Your task to perform on an android device: toggle improve location accuracy Image 0: 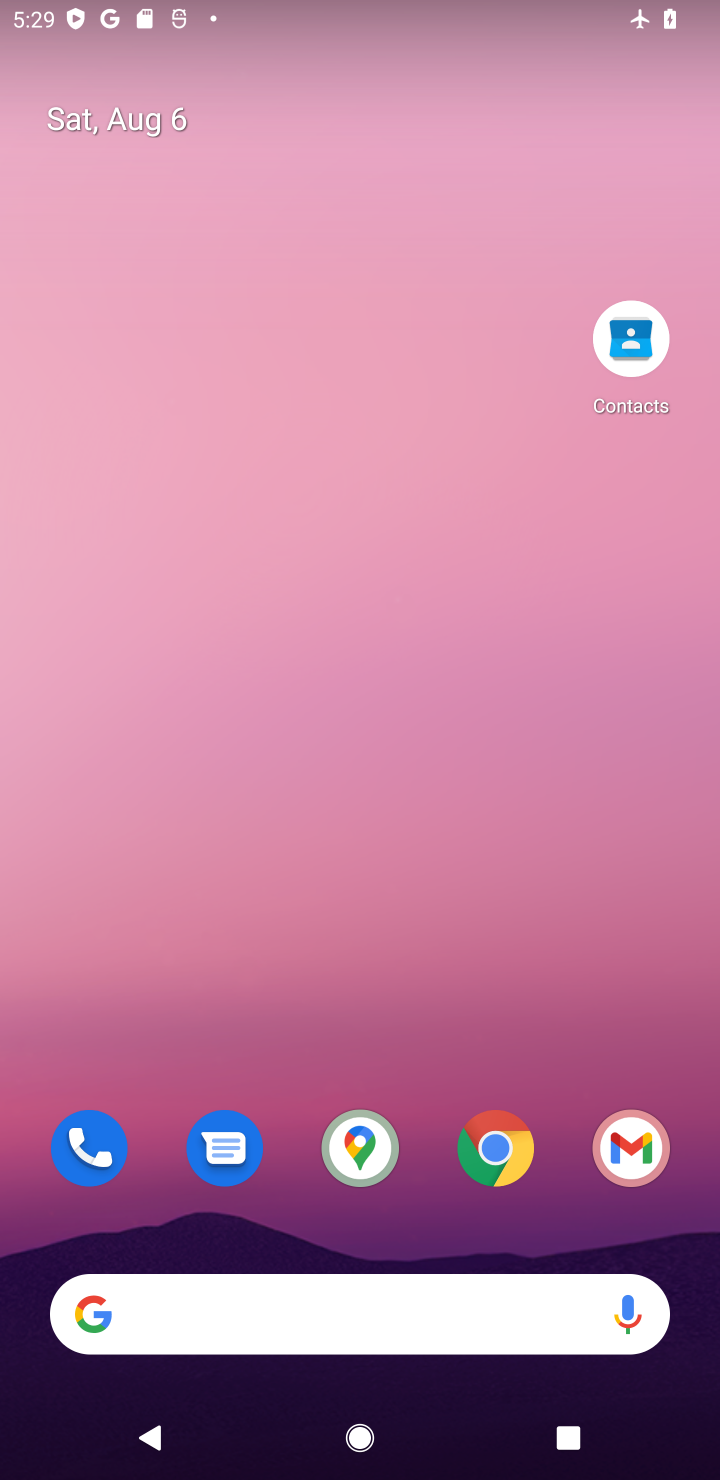
Step 0: drag from (355, 1028) to (715, 546)
Your task to perform on an android device: toggle improve location accuracy Image 1: 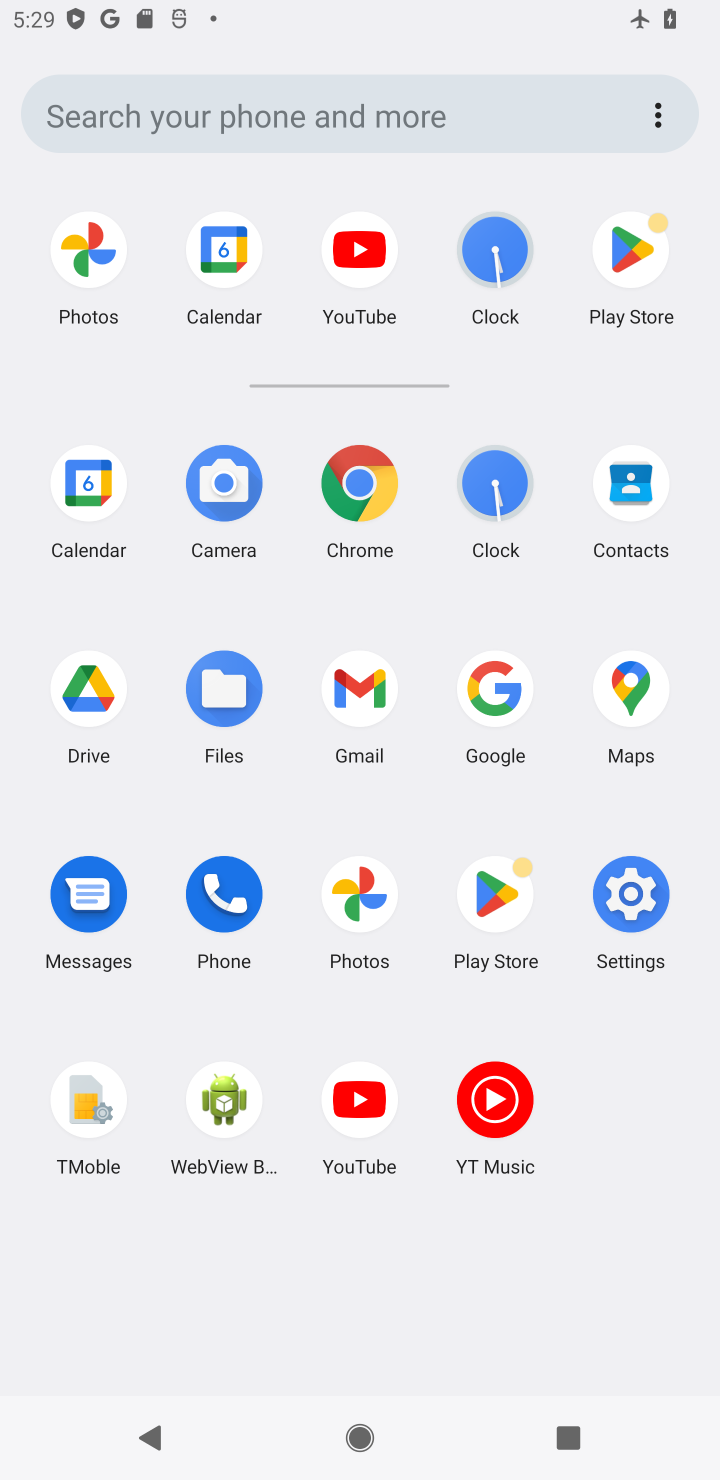
Step 1: click (600, 904)
Your task to perform on an android device: toggle improve location accuracy Image 2: 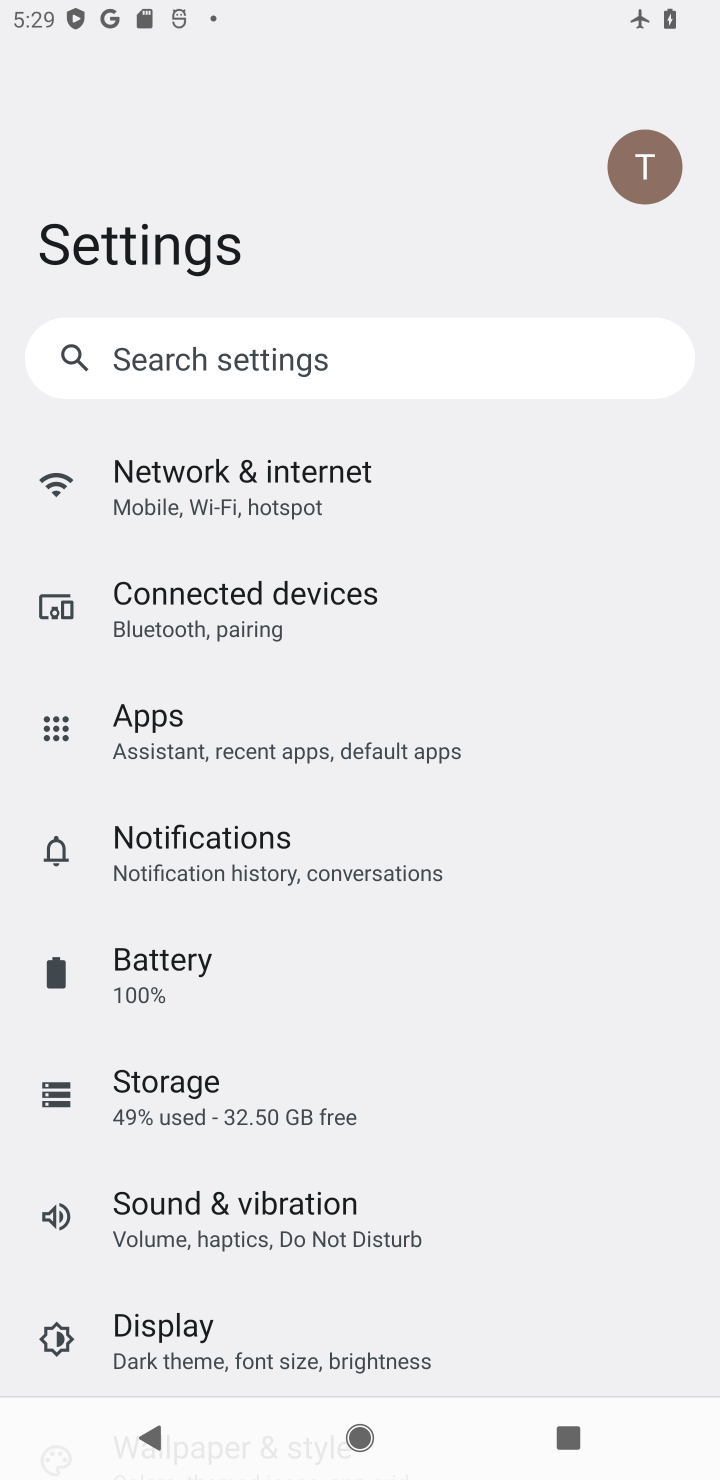
Step 2: drag from (258, 1081) to (238, 88)
Your task to perform on an android device: toggle improve location accuracy Image 3: 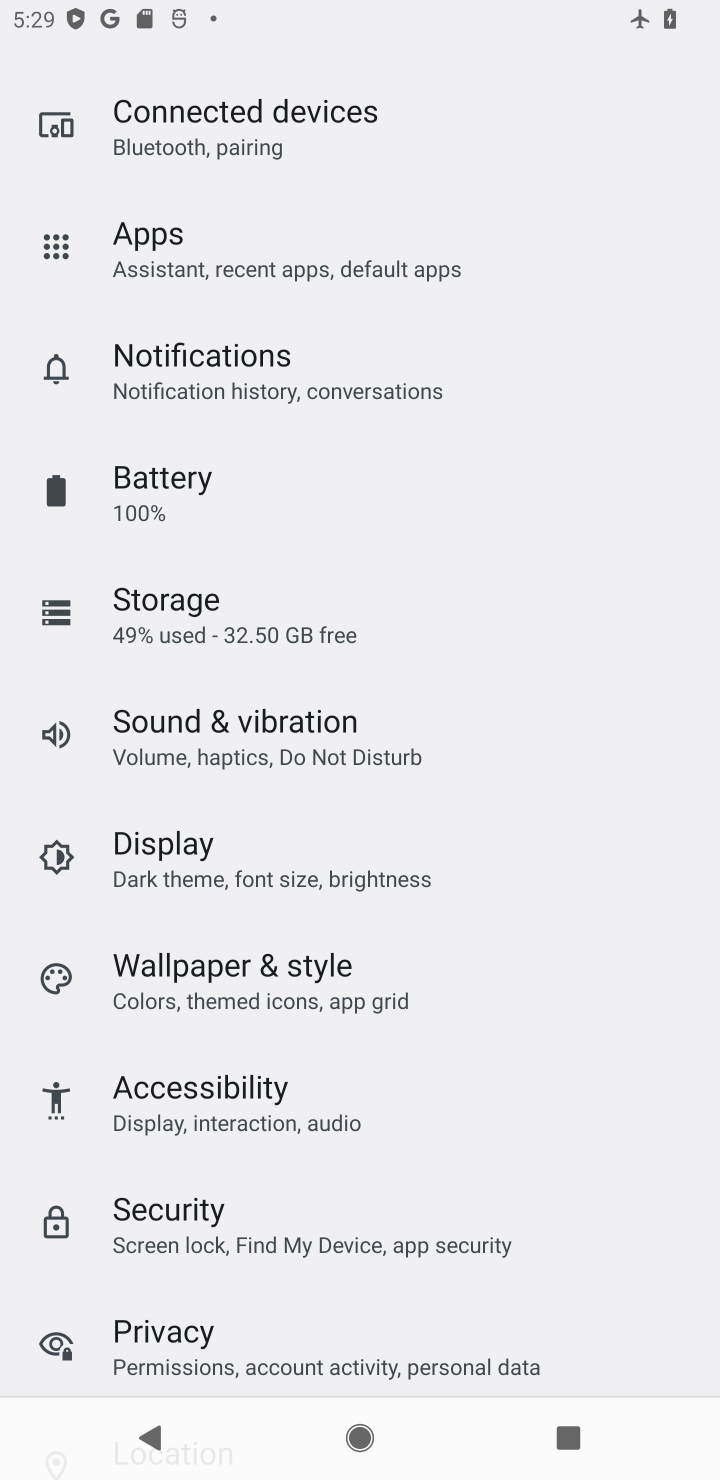
Step 3: drag from (293, 1192) to (297, 357)
Your task to perform on an android device: toggle improve location accuracy Image 4: 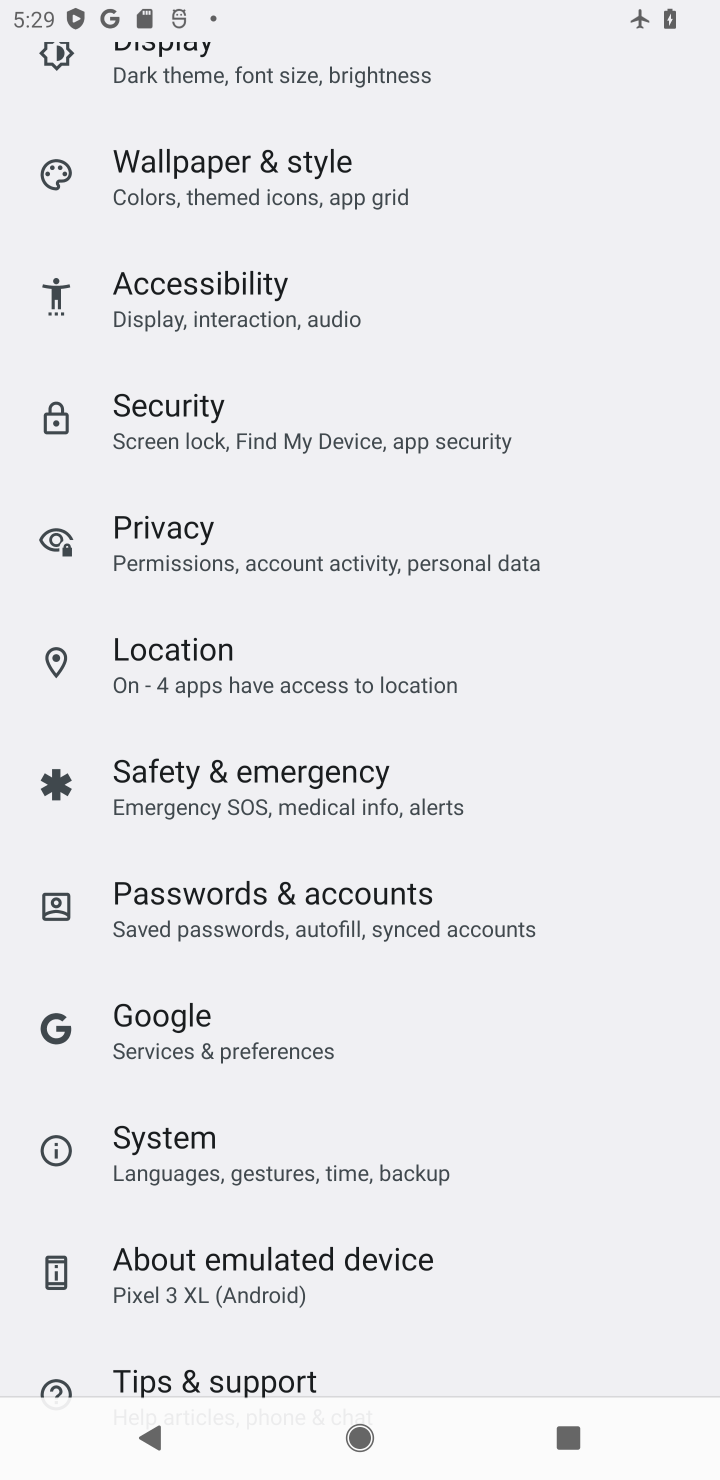
Step 4: click (198, 654)
Your task to perform on an android device: toggle improve location accuracy Image 5: 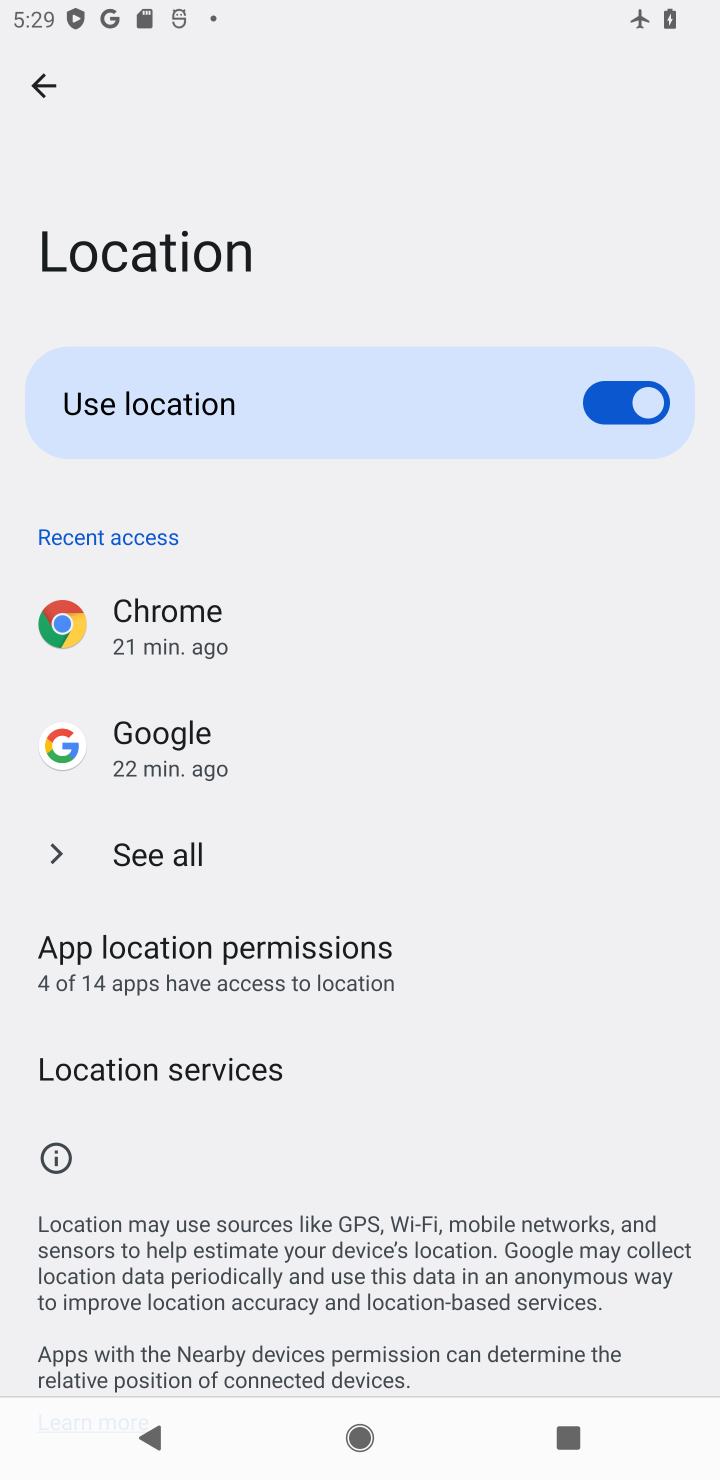
Step 5: click (168, 1106)
Your task to perform on an android device: toggle improve location accuracy Image 6: 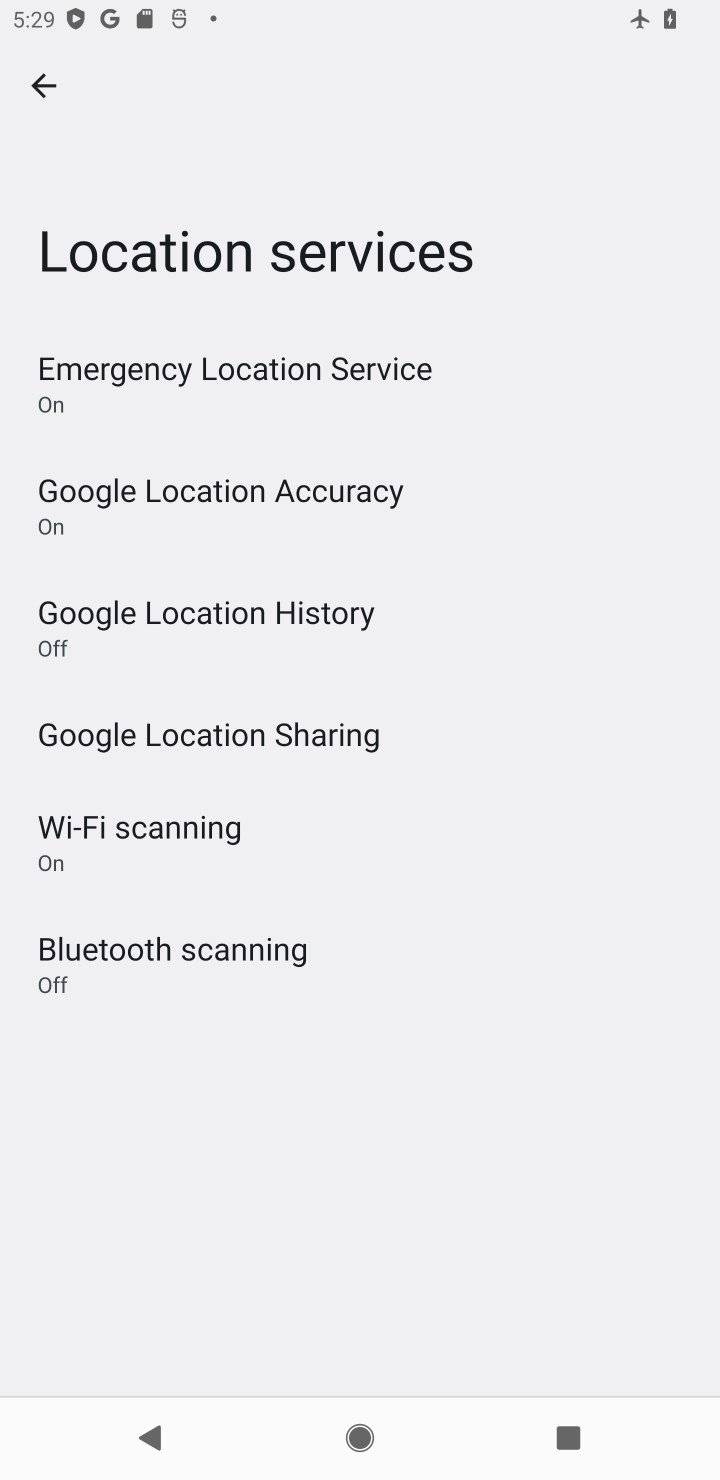
Step 6: click (306, 520)
Your task to perform on an android device: toggle improve location accuracy Image 7: 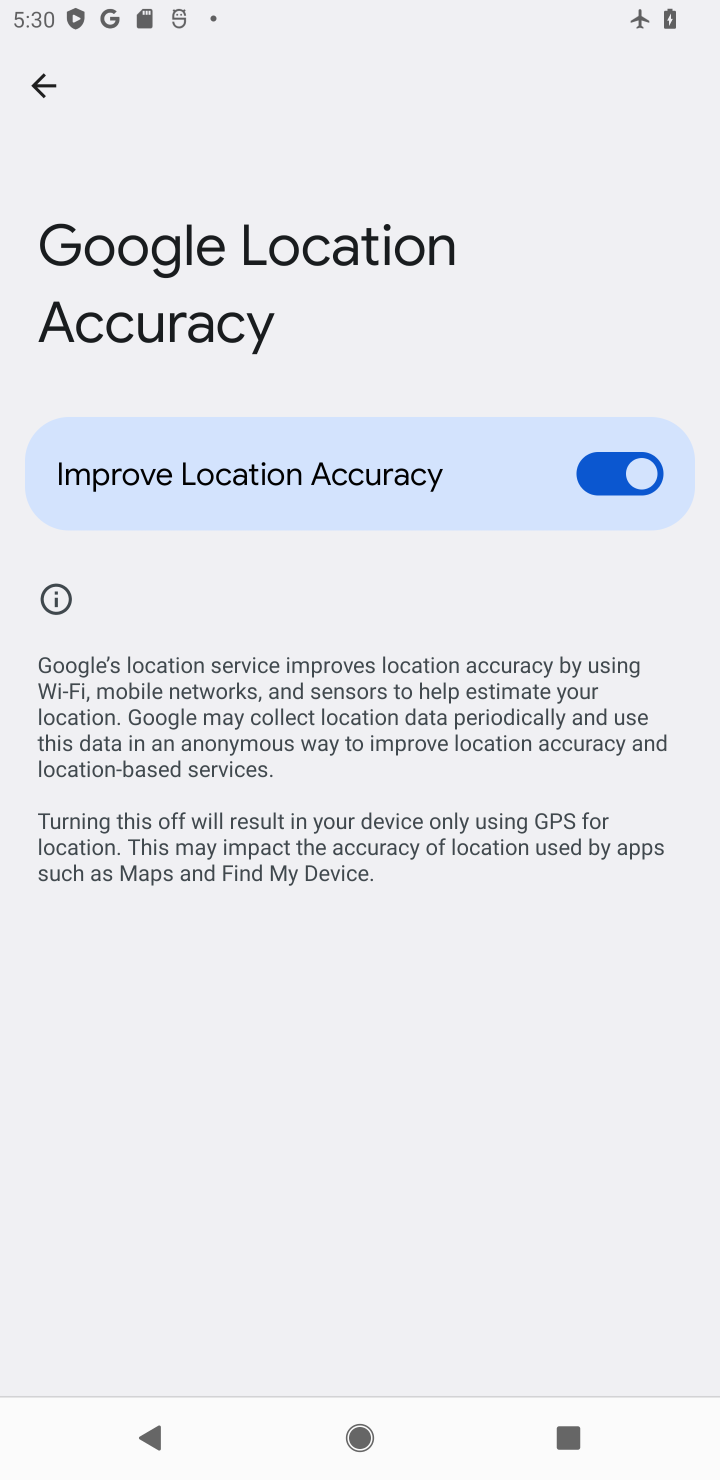
Step 7: click (584, 458)
Your task to perform on an android device: toggle improve location accuracy Image 8: 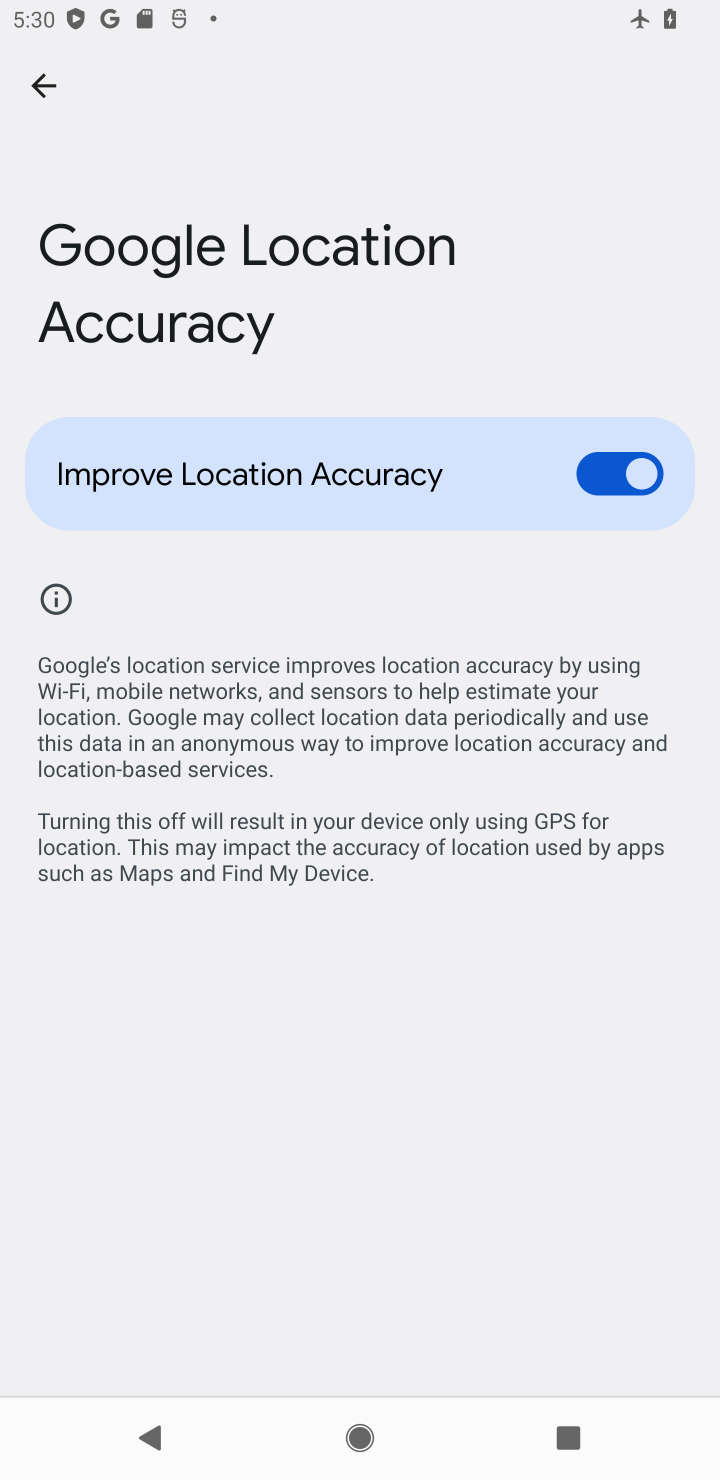
Step 8: task complete